Your task to perform on an android device: Turn on the flashlight Image 0: 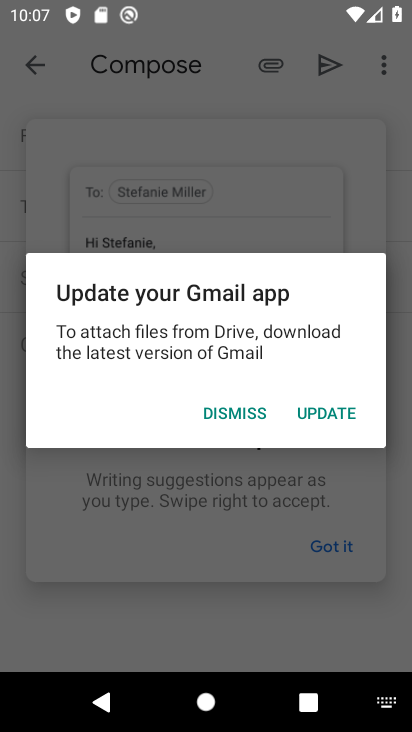
Step 0: press home button
Your task to perform on an android device: Turn on the flashlight Image 1: 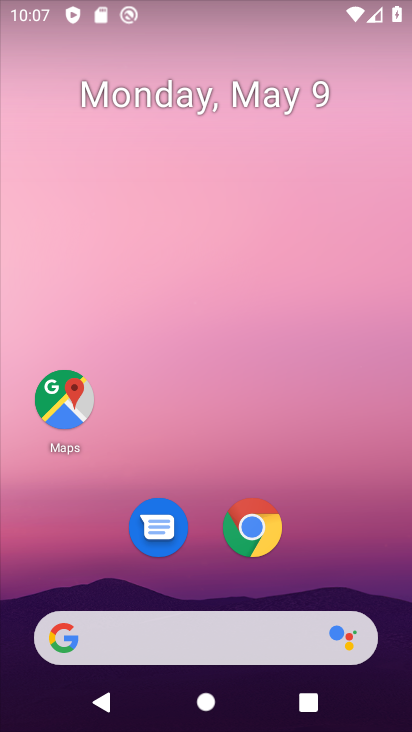
Step 1: drag from (305, 563) to (184, 98)
Your task to perform on an android device: Turn on the flashlight Image 2: 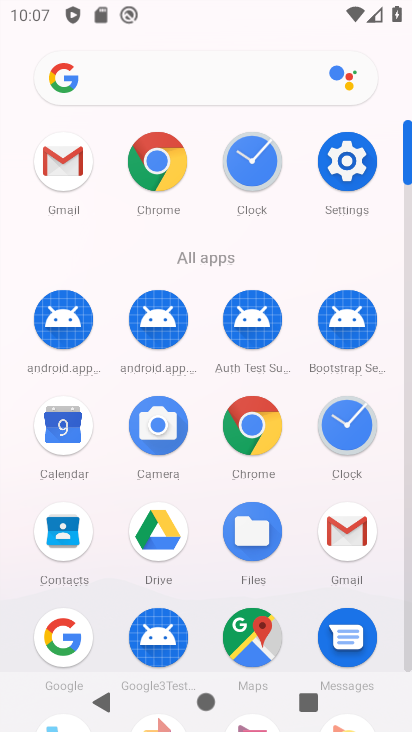
Step 2: click (345, 160)
Your task to perform on an android device: Turn on the flashlight Image 3: 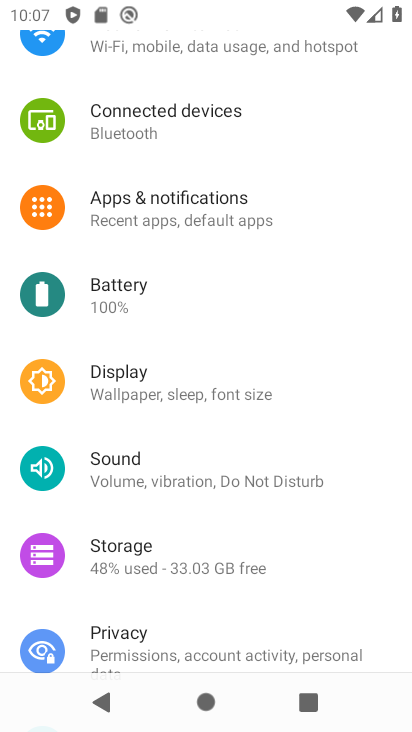
Step 3: drag from (146, 524) to (183, 442)
Your task to perform on an android device: Turn on the flashlight Image 4: 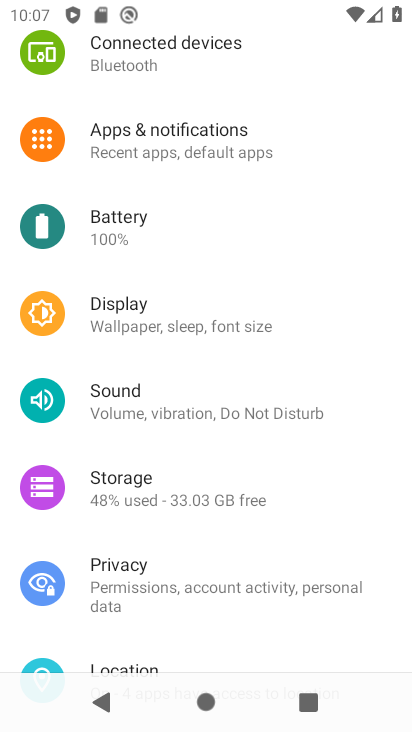
Step 4: drag from (157, 588) to (202, 495)
Your task to perform on an android device: Turn on the flashlight Image 5: 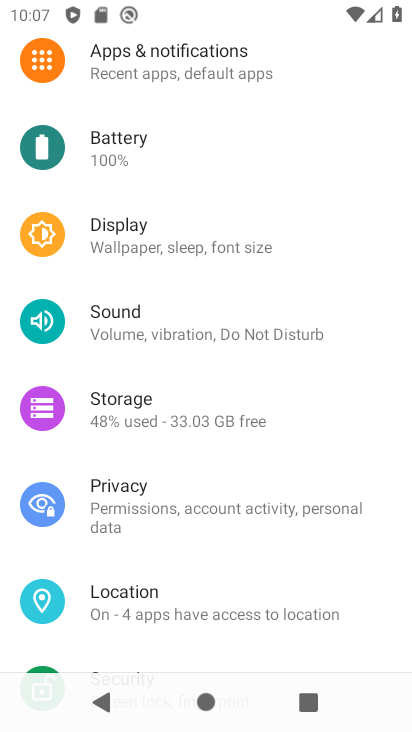
Step 5: drag from (194, 578) to (265, 417)
Your task to perform on an android device: Turn on the flashlight Image 6: 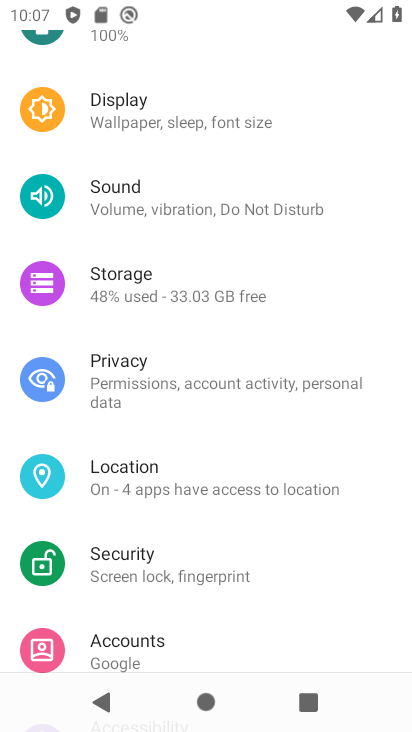
Step 6: drag from (165, 555) to (252, 433)
Your task to perform on an android device: Turn on the flashlight Image 7: 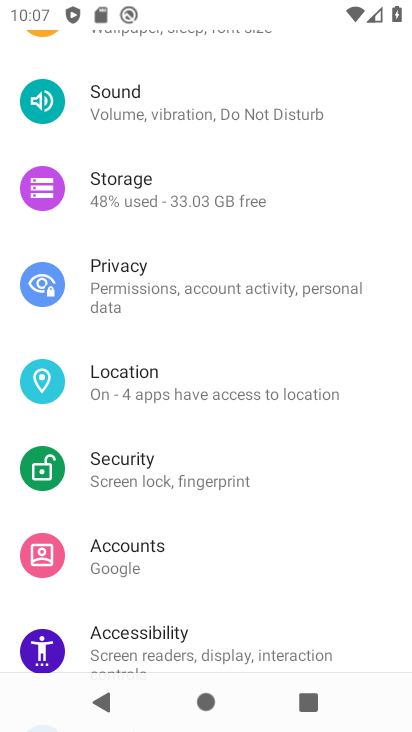
Step 7: drag from (173, 621) to (269, 467)
Your task to perform on an android device: Turn on the flashlight Image 8: 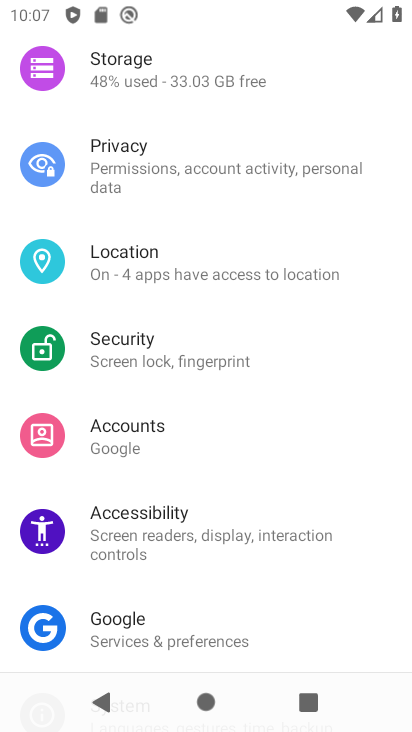
Step 8: click (193, 518)
Your task to perform on an android device: Turn on the flashlight Image 9: 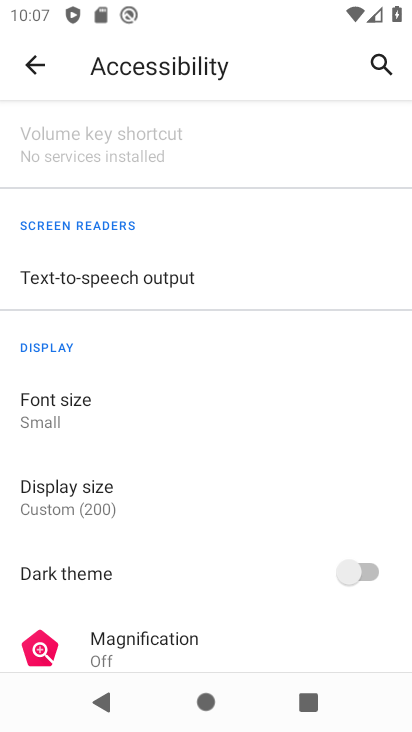
Step 9: drag from (101, 507) to (158, 362)
Your task to perform on an android device: Turn on the flashlight Image 10: 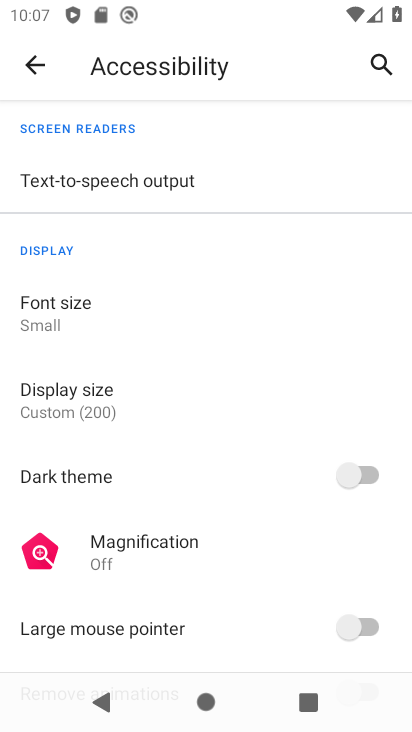
Step 10: drag from (127, 503) to (176, 332)
Your task to perform on an android device: Turn on the flashlight Image 11: 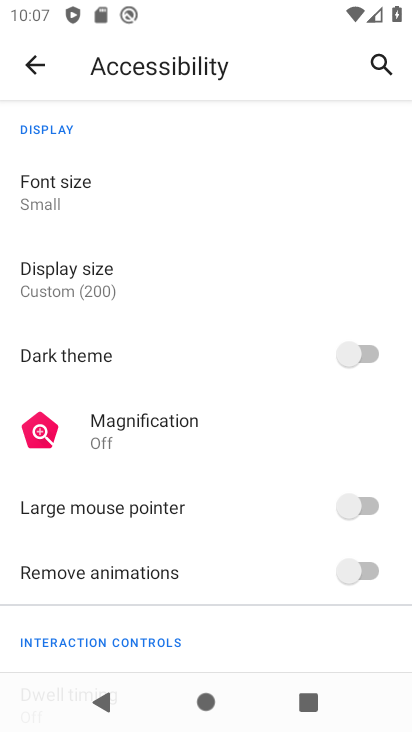
Step 11: drag from (98, 528) to (170, 326)
Your task to perform on an android device: Turn on the flashlight Image 12: 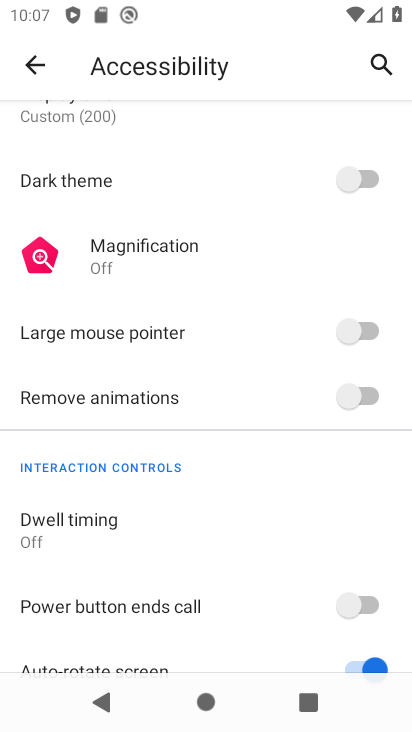
Step 12: press back button
Your task to perform on an android device: Turn on the flashlight Image 13: 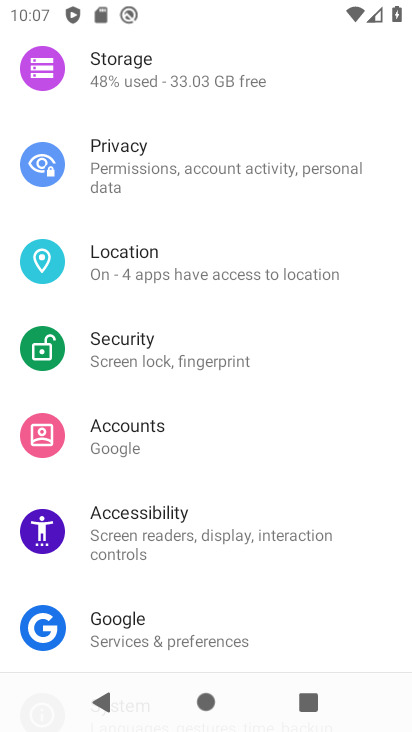
Step 13: drag from (158, 553) to (210, 406)
Your task to perform on an android device: Turn on the flashlight Image 14: 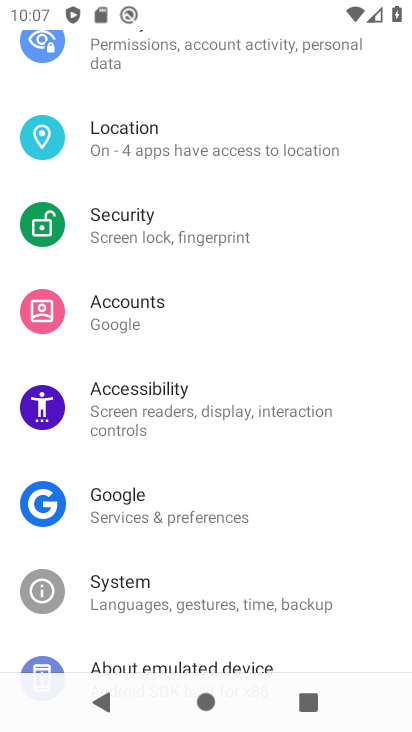
Step 14: drag from (185, 586) to (261, 447)
Your task to perform on an android device: Turn on the flashlight Image 15: 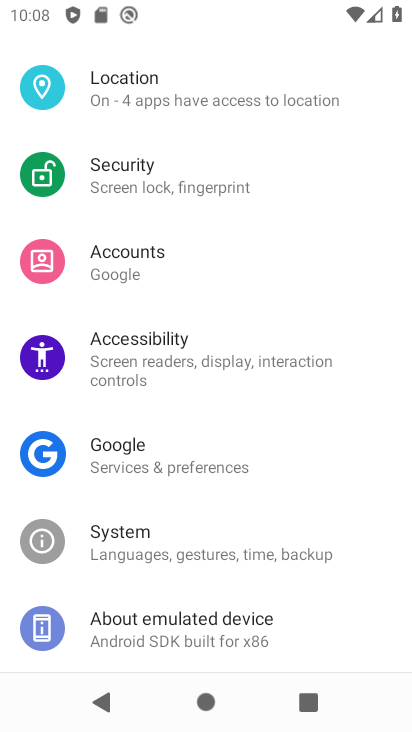
Step 15: drag from (320, 247) to (290, 456)
Your task to perform on an android device: Turn on the flashlight Image 16: 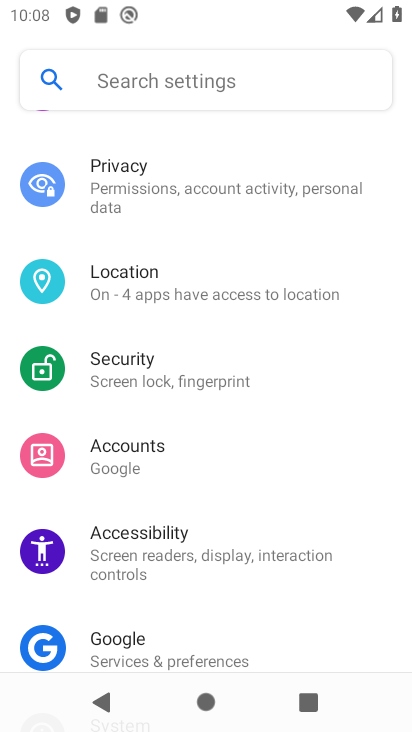
Step 16: drag from (215, 270) to (241, 435)
Your task to perform on an android device: Turn on the flashlight Image 17: 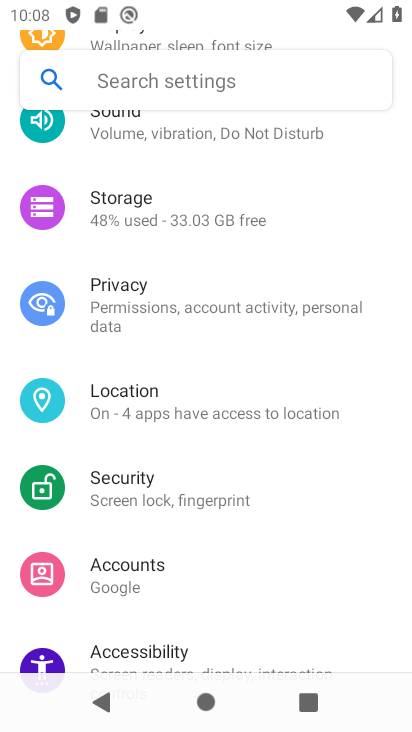
Step 17: drag from (196, 235) to (245, 309)
Your task to perform on an android device: Turn on the flashlight Image 18: 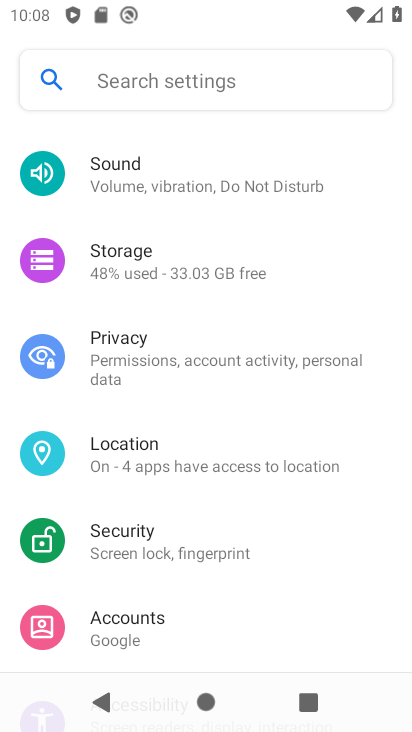
Step 18: drag from (197, 140) to (238, 317)
Your task to perform on an android device: Turn on the flashlight Image 19: 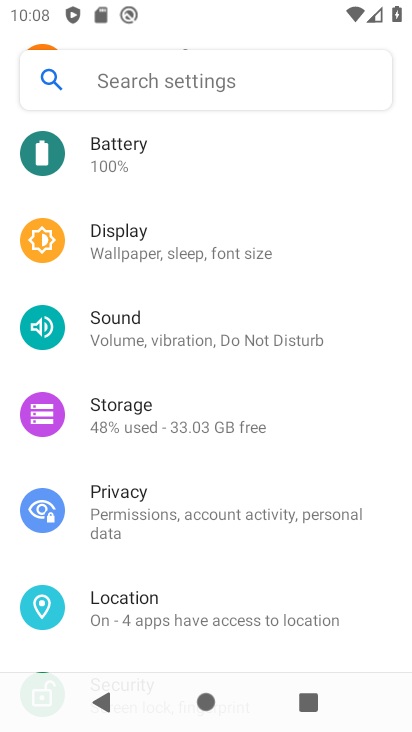
Step 19: drag from (68, 299) to (139, 456)
Your task to perform on an android device: Turn on the flashlight Image 20: 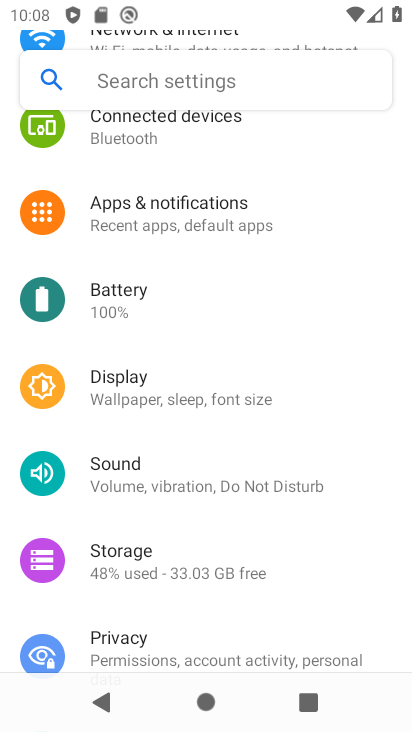
Step 20: drag from (169, 285) to (213, 386)
Your task to perform on an android device: Turn on the flashlight Image 21: 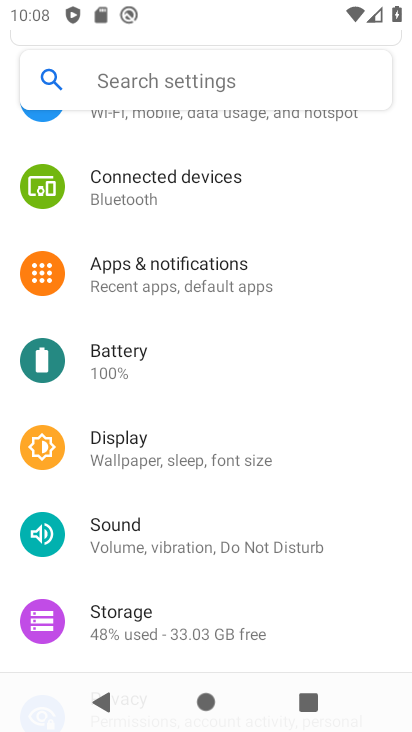
Step 21: click (162, 281)
Your task to perform on an android device: Turn on the flashlight Image 22: 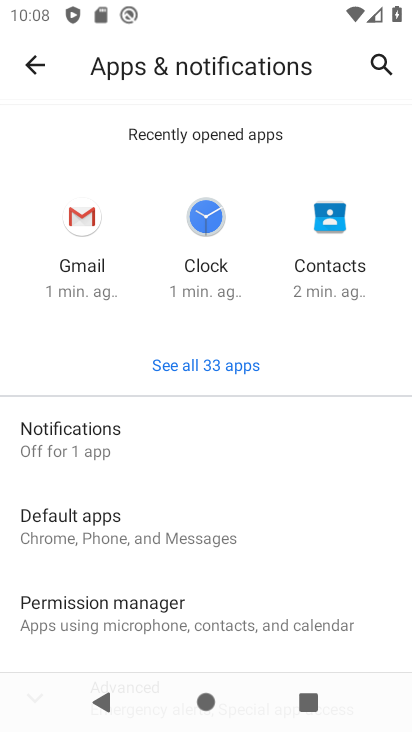
Step 22: press back button
Your task to perform on an android device: Turn on the flashlight Image 23: 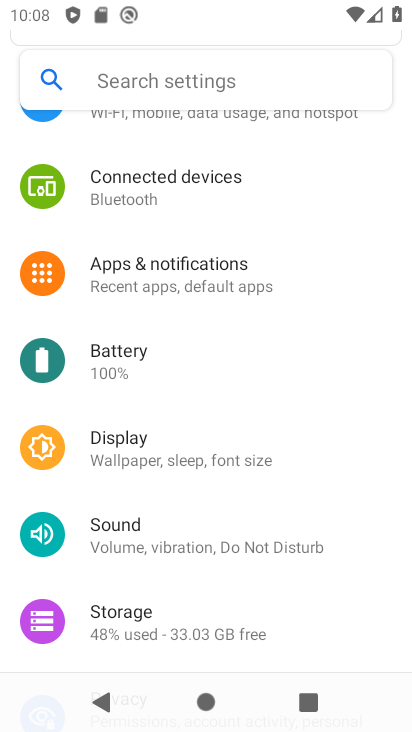
Step 23: click (170, 455)
Your task to perform on an android device: Turn on the flashlight Image 24: 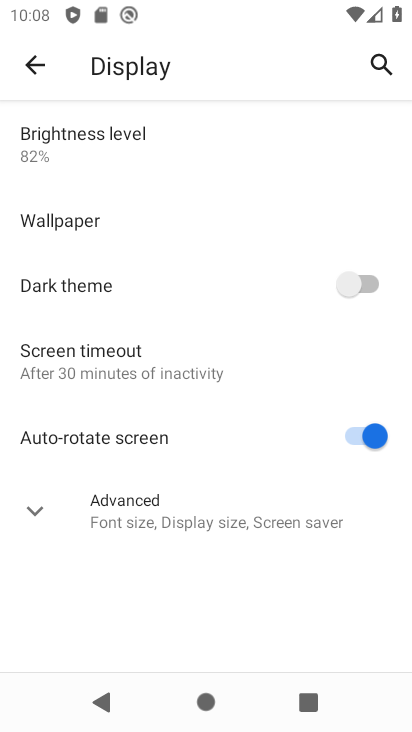
Step 24: click (173, 515)
Your task to perform on an android device: Turn on the flashlight Image 25: 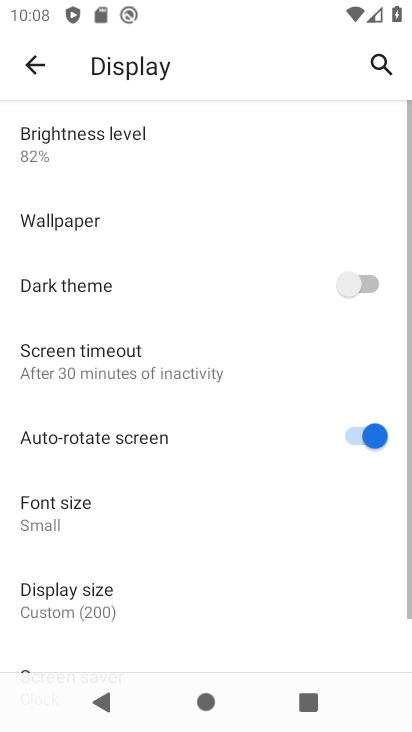
Step 25: task complete